Your task to perform on an android device: Search for the best rated phone case for the iPhone 8. Image 0: 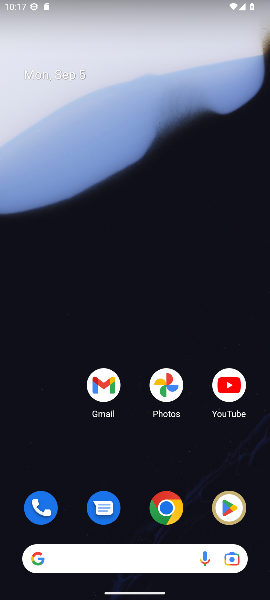
Step 0: drag from (148, 488) to (177, 52)
Your task to perform on an android device: Search for the best rated phone case for the iPhone 8. Image 1: 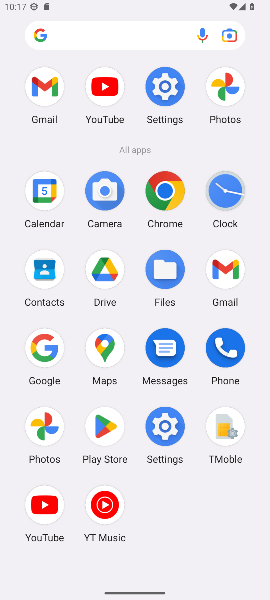
Step 1: click (173, 202)
Your task to perform on an android device: Search for the best rated phone case for the iPhone 8. Image 2: 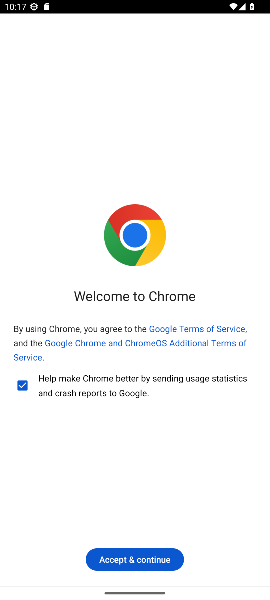
Step 2: click (117, 552)
Your task to perform on an android device: Search for the best rated phone case for the iPhone 8. Image 3: 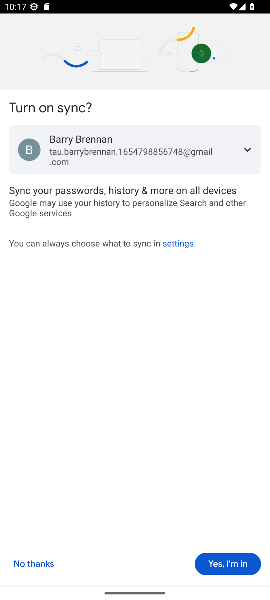
Step 3: click (234, 566)
Your task to perform on an android device: Search for the best rated phone case for the iPhone 8. Image 4: 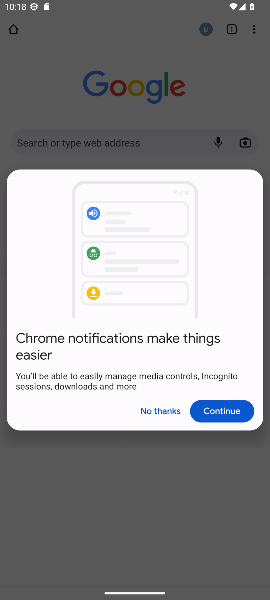
Step 4: click (152, 406)
Your task to perform on an android device: Search for the best rated phone case for the iPhone 8. Image 5: 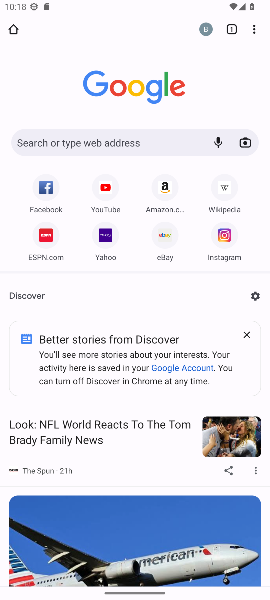
Step 5: click (129, 141)
Your task to perform on an android device: Search for the best rated phone case for the iPhone 8. Image 6: 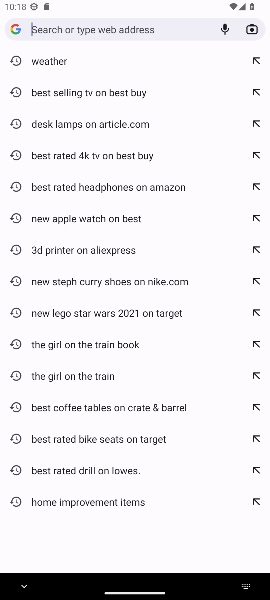
Step 6: type "best rated phone case for the iPhone 8"
Your task to perform on an android device: Search for the best rated phone case for the iPhone 8. Image 7: 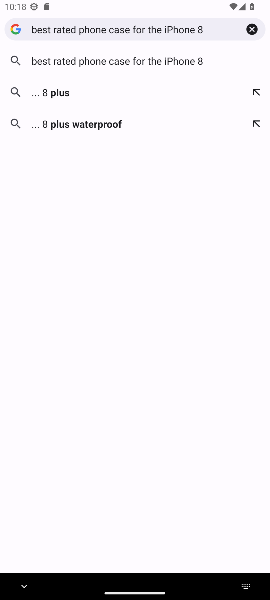
Step 7: press enter
Your task to perform on an android device: Search for the best rated phone case for the iPhone 8. Image 8: 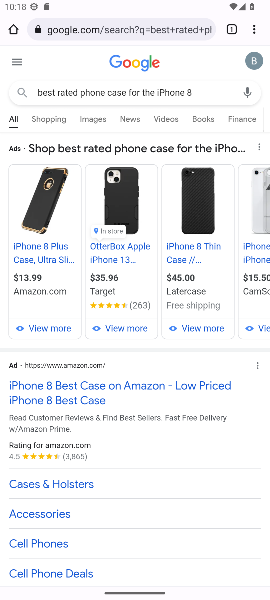
Step 8: drag from (137, 524) to (173, 88)
Your task to perform on an android device: Search for the best rated phone case for the iPhone 8. Image 9: 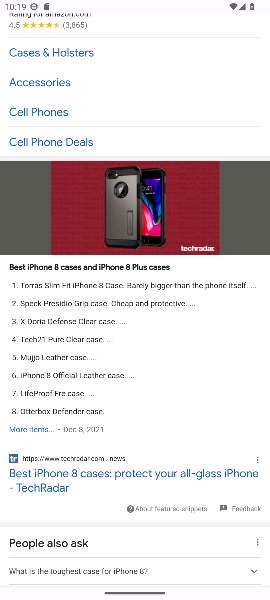
Step 9: click (125, 471)
Your task to perform on an android device: Search for the best rated phone case for the iPhone 8. Image 10: 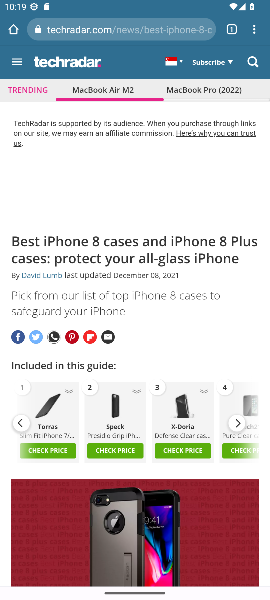
Step 10: task complete